Your task to perform on an android device: Go to privacy settings Image 0: 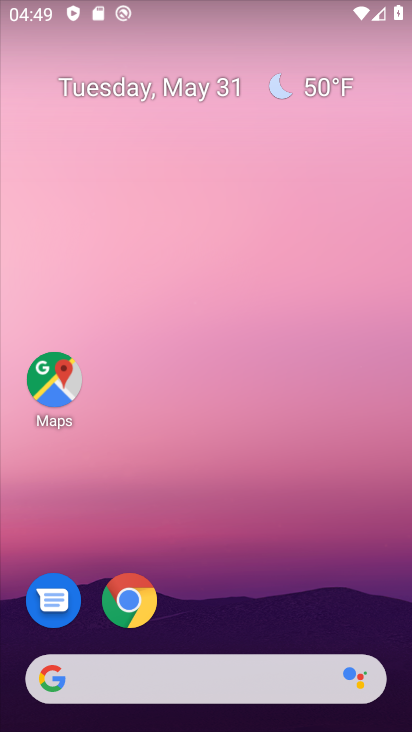
Step 0: drag from (273, 542) to (174, 86)
Your task to perform on an android device: Go to privacy settings Image 1: 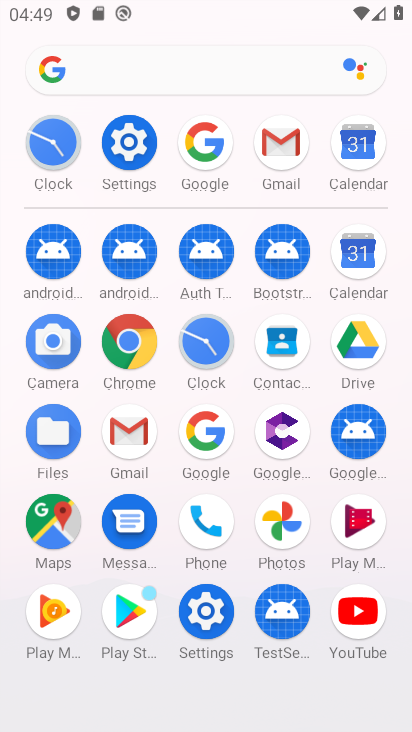
Step 1: click (129, 140)
Your task to perform on an android device: Go to privacy settings Image 2: 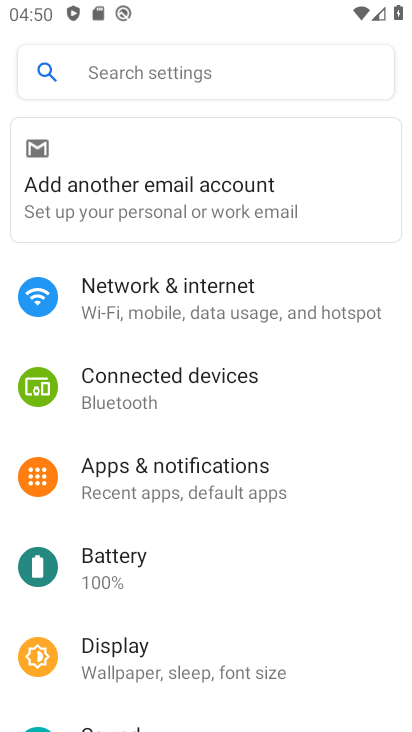
Step 2: drag from (197, 601) to (172, 287)
Your task to perform on an android device: Go to privacy settings Image 3: 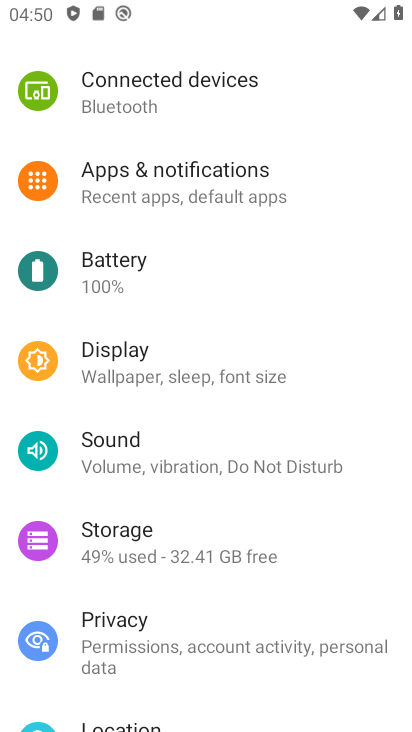
Step 3: drag from (170, 491) to (140, 302)
Your task to perform on an android device: Go to privacy settings Image 4: 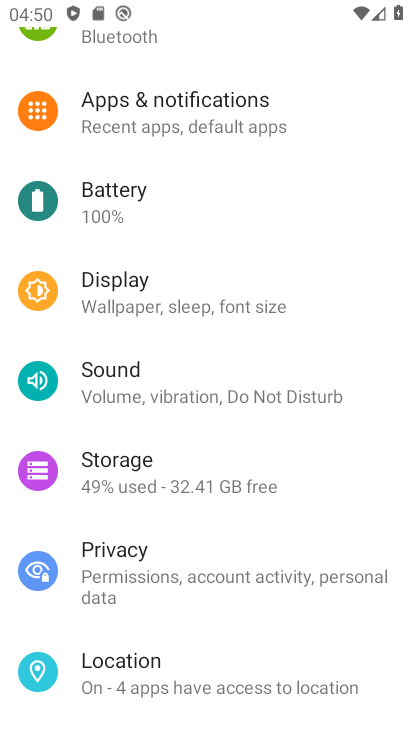
Step 4: click (170, 577)
Your task to perform on an android device: Go to privacy settings Image 5: 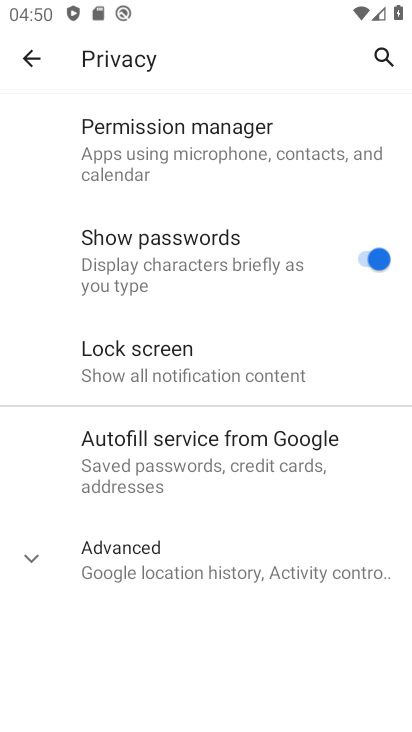
Step 5: task complete